Your task to perform on an android device: turn on translation in the chrome app Image 0: 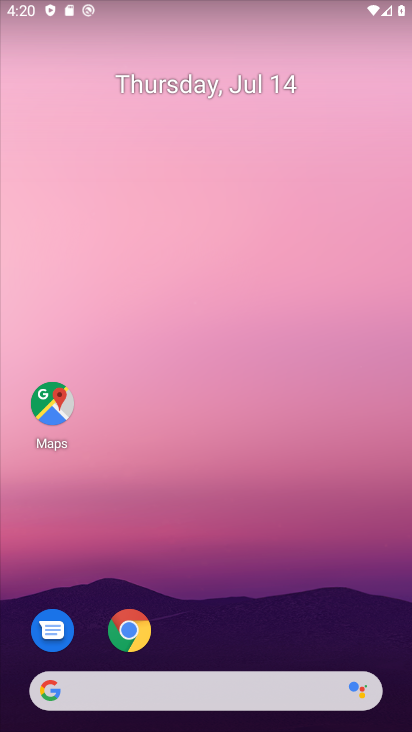
Step 0: click (140, 634)
Your task to perform on an android device: turn on translation in the chrome app Image 1: 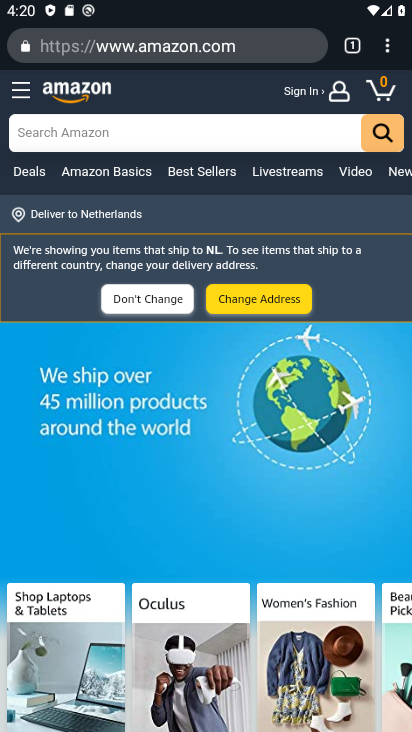
Step 1: click (394, 47)
Your task to perform on an android device: turn on translation in the chrome app Image 2: 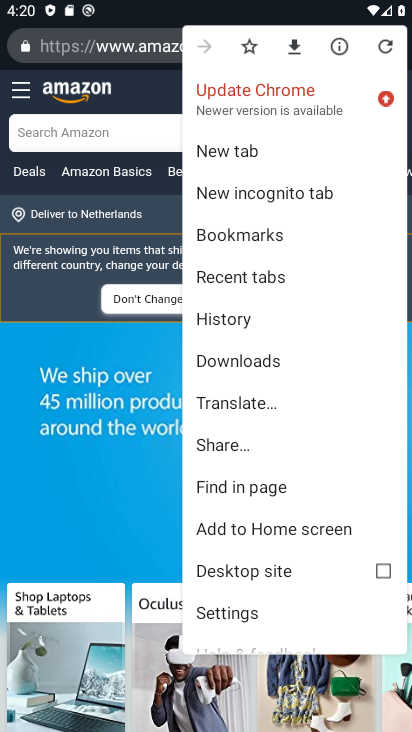
Step 2: click (239, 607)
Your task to perform on an android device: turn on translation in the chrome app Image 3: 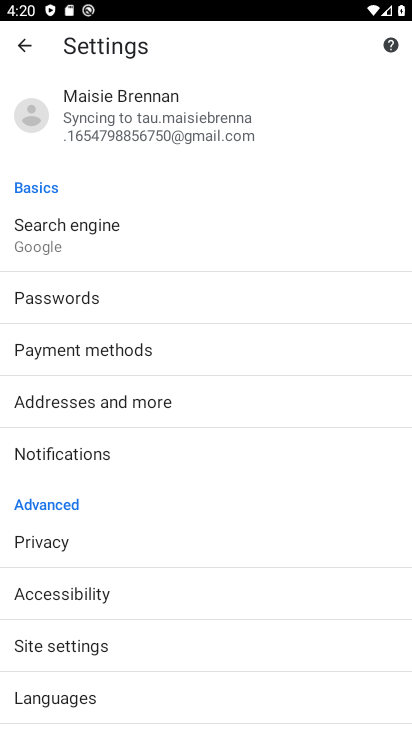
Step 3: click (64, 692)
Your task to perform on an android device: turn on translation in the chrome app Image 4: 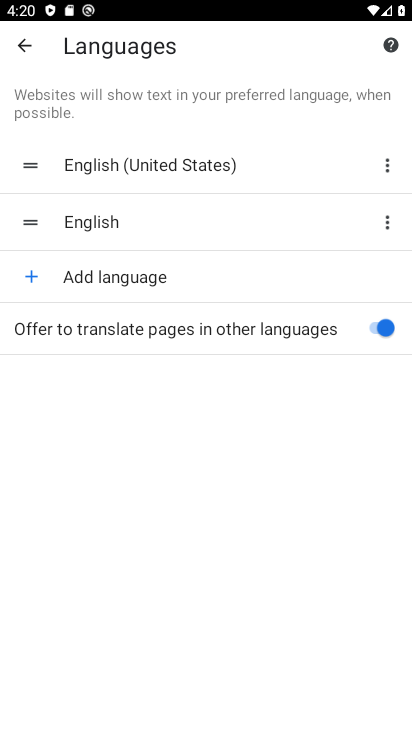
Step 4: task complete